Your task to perform on an android device: What is the recent news? Image 0: 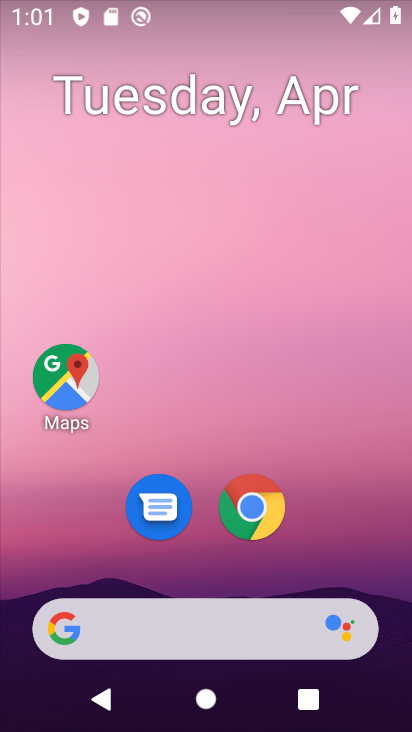
Step 0: click (242, 510)
Your task to perform on an android device: What is the recent news? Image 1: 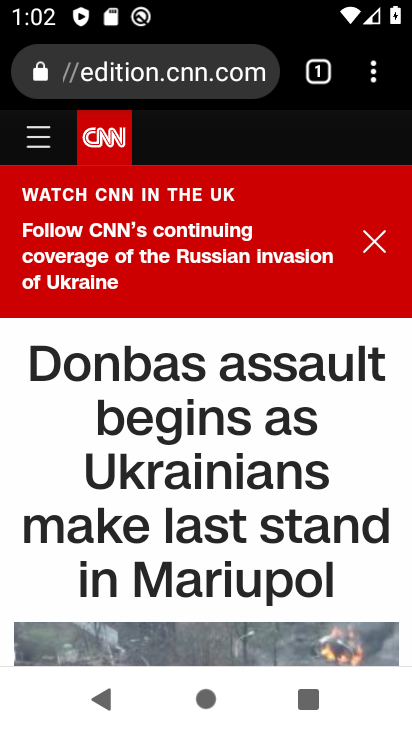
Step 1: click (321, 71)
Your task to perform on an android device: What is the recent news? Image 2: 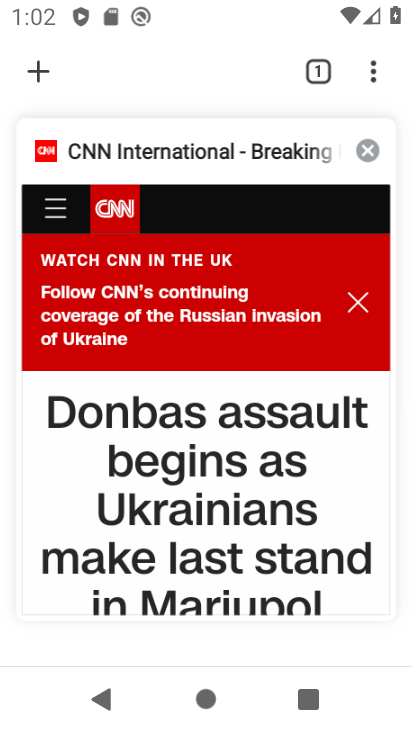
Step 2: click (289, 246)
Your task to perform on an android device: What is the recent news? Image 3: 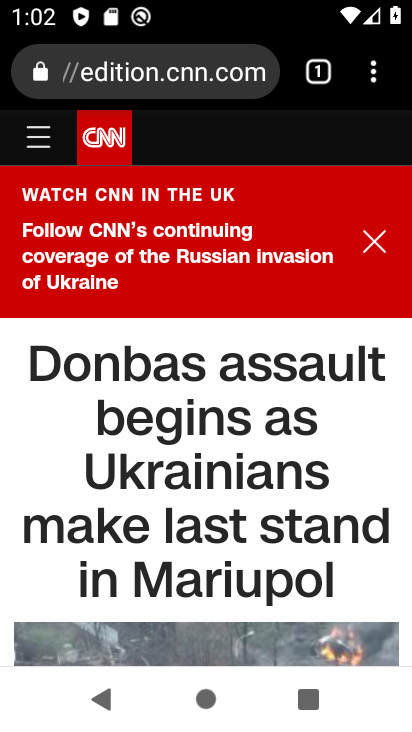
Step 3: click (322, 71)
Your task to perform on an android device: What is the recent news? Image 4: 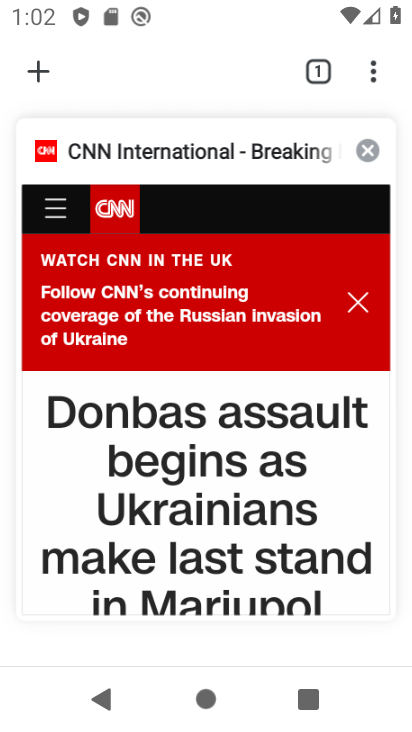
Step 4: click (37, 63)
Your task to perform on an android device: What is the recent news? Image 5: 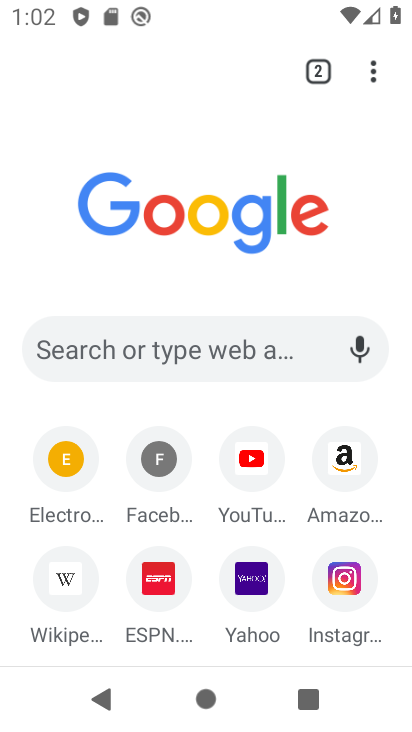
Step 5: task complete